Your task to perform on an android device: Go to settings Image 0: 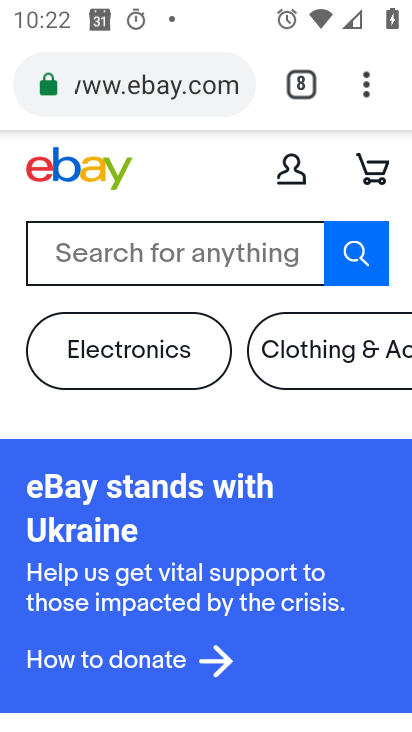
Step 0: press home button
Your task to perform on an android device: Go to settings Image 1: 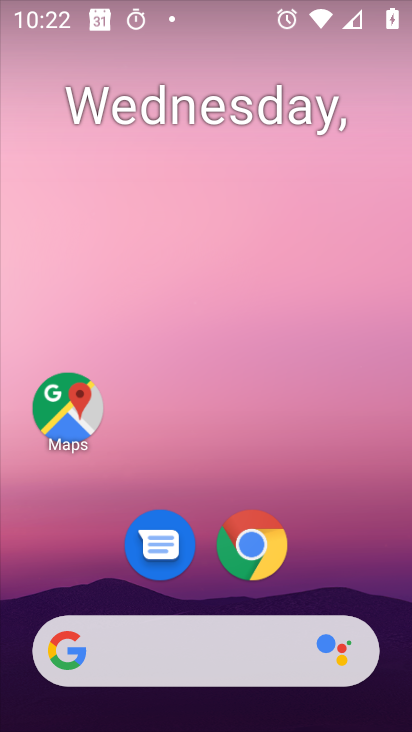
Step 1: drag from (192, 584) to (281, 127)
Your task to perform on an android device: Go to settings Image 2: 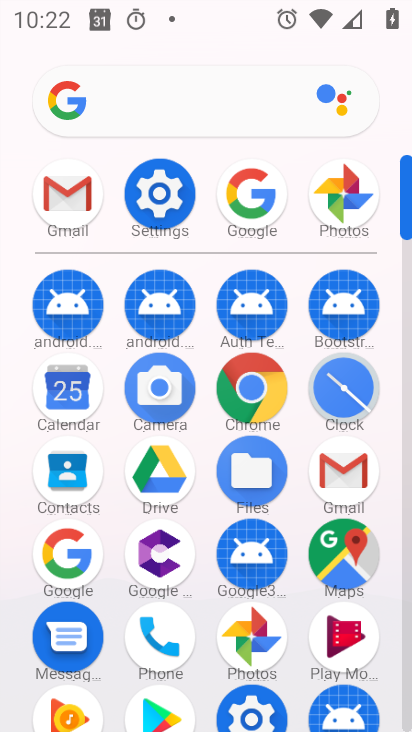
Step 2: click (156, 200)
Your task to perform on an android device: Go to settings Image 3: 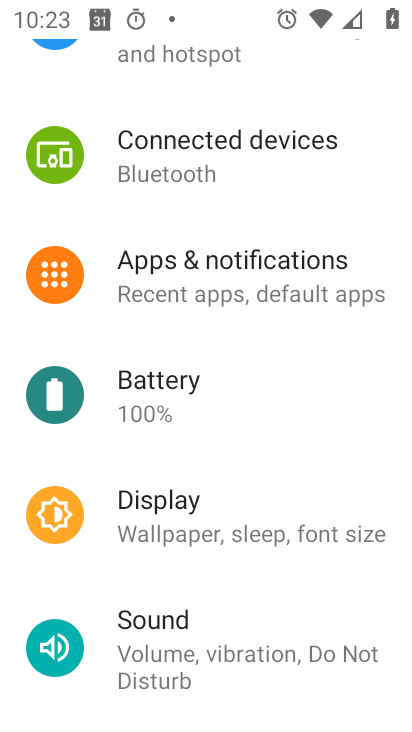
Step 3: task complete